Your task to perform on an android device: empty trash in google photos Image 0: 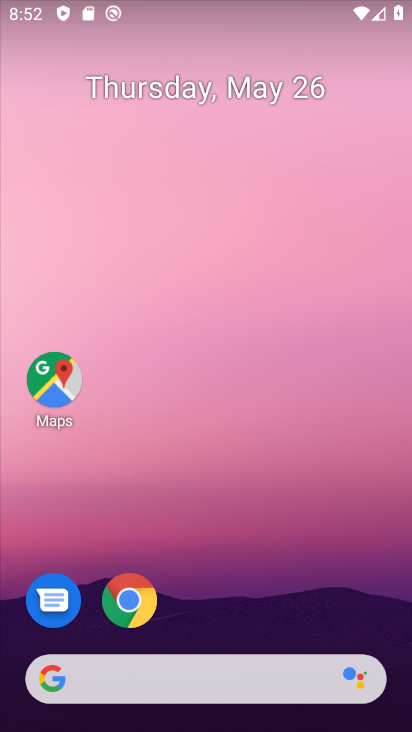
Step 0: drag from (226, 419) to (275, 185)
Your task to perform on an android device: empty trash in google photos Image 1: 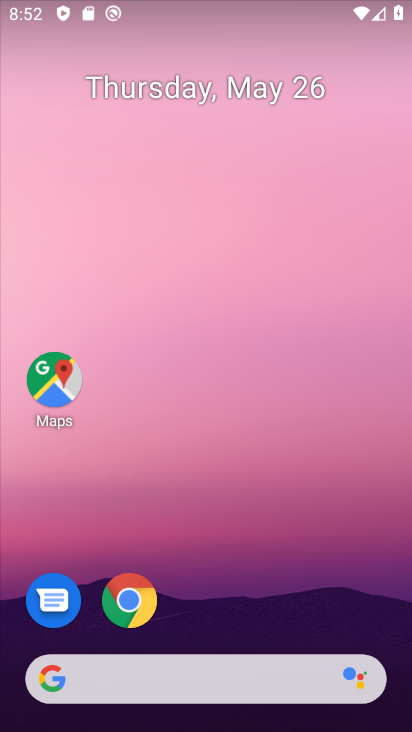
Step 1: drag from (247, 617) to (245, 102)
Your task to perform on an android device: empty trash in google photos Image 2: 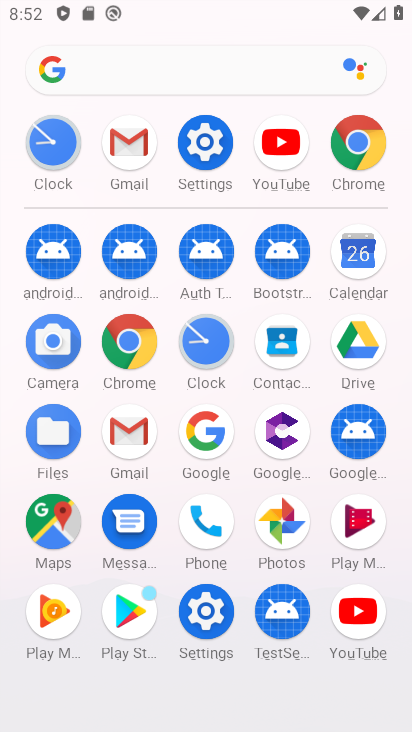
Step 2: click (272, 506)
Your task to perform on an android device: empty trash in google photos Image 3: 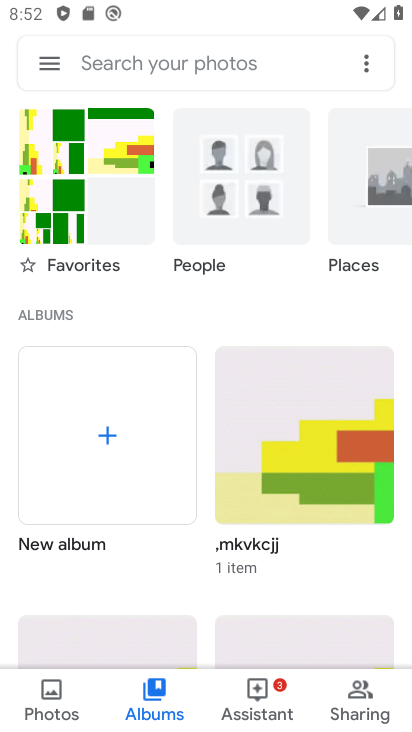
Step 3: click (51, 69)
Your task to perform on an android device: empty trash in google photos Image 4: 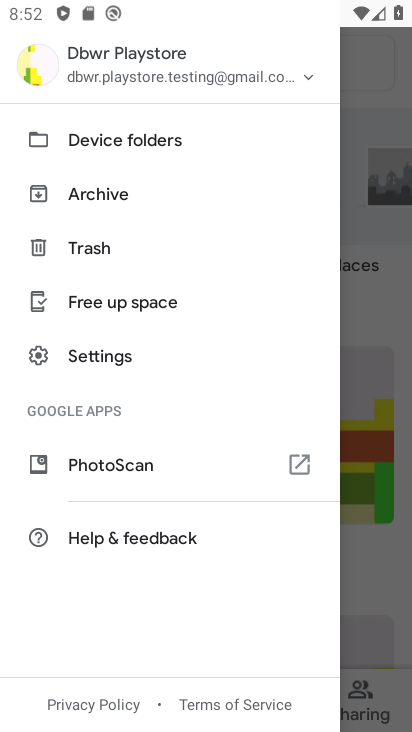
Step 4: click (118, 253)
Your task to perform on an android device: empty trash in google photos Image 5: 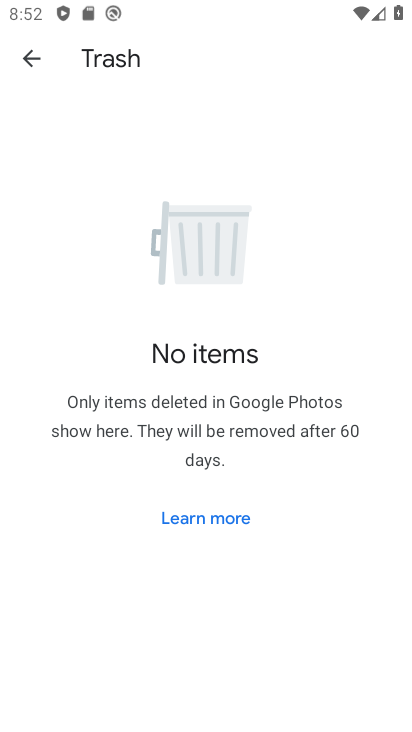
Step 5: task complete